Your task to perform on an android device: turn smart compose on in the gmail app Image 0: 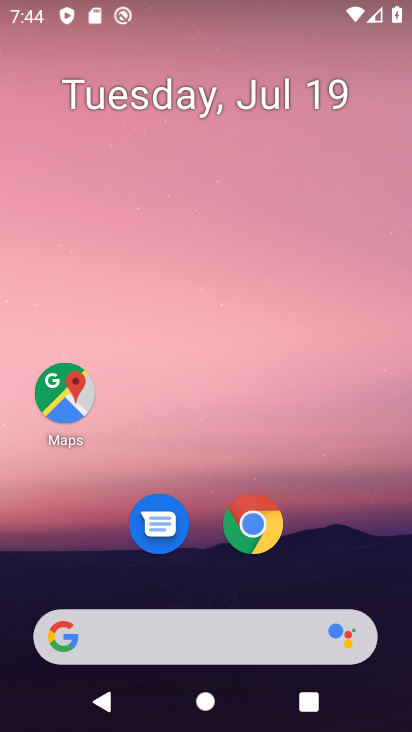
Step 0: drag from (337, 523) to (353, 70)
Your task to perform on an android device: turn smart compose on in the gmail app Image 1: 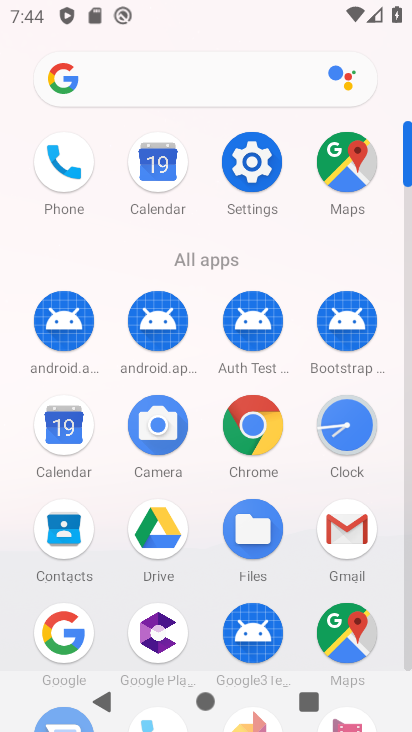
Step 1: click (349, 533)
Your task to perform on an android device: turn smart compose on in the gmail app Image 2: 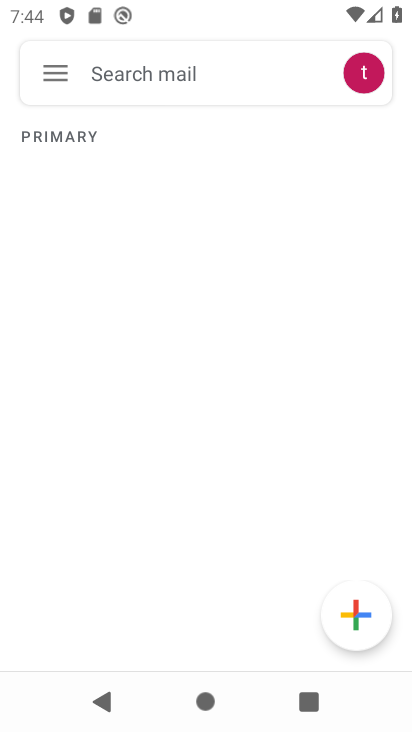
Step 2: click (59, 70)
Your task to perform on an android device: turn smart compose on in the gmail app Image 3: 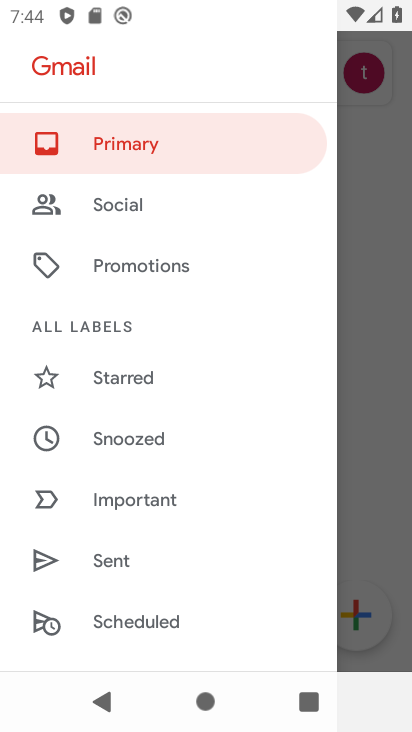
Step 3: drag from (186, 566) to (231, 82)
Your task to perform on an android device: turn smart compose on in the gmail app Image 4: 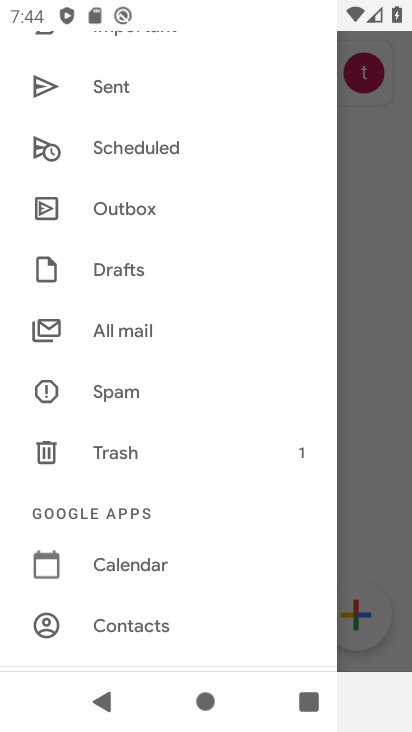
Step 4: drag from (192, 452) to (208, 140)
Your task to perform on an android device: turn smart compose on in the gmail app Image 5: 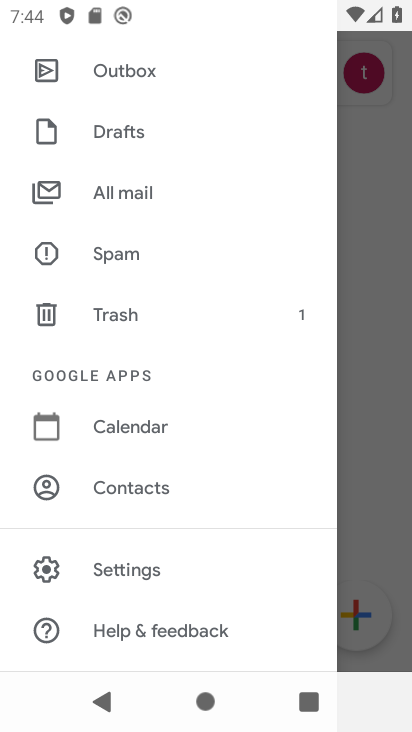
Step 5: click (120, 566)
Your task to perform on an android device: turn smart compose on in the gmail app Image 6: 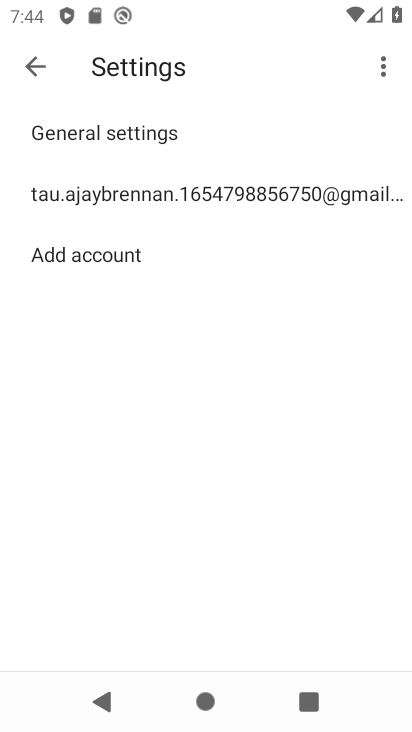
Step 6: click (233, 194)
Your task to perform on an android device: turn smart compose on in the gmail app Image 7: 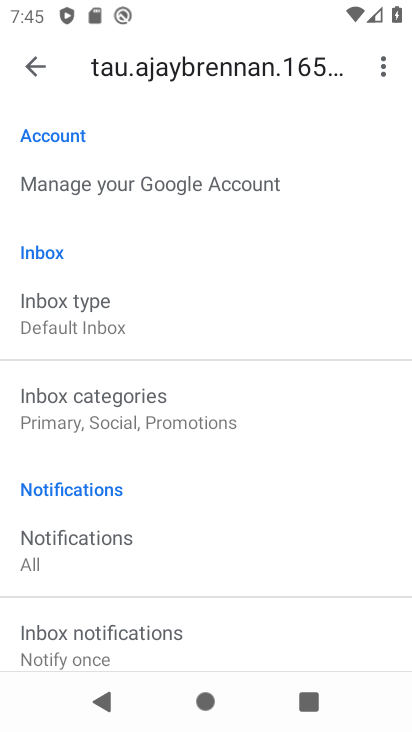
Step 7: task complete